Your task to perform on an android device: Go to Maps Image 0: 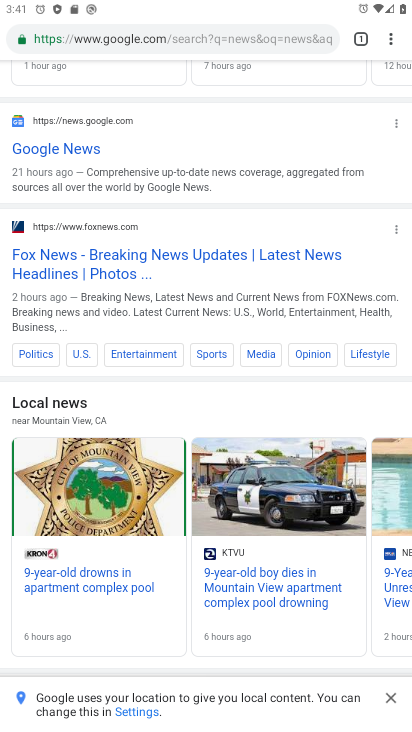
Step 0: press home button
Your task to perform on an android device: Go to Maps Image 1: 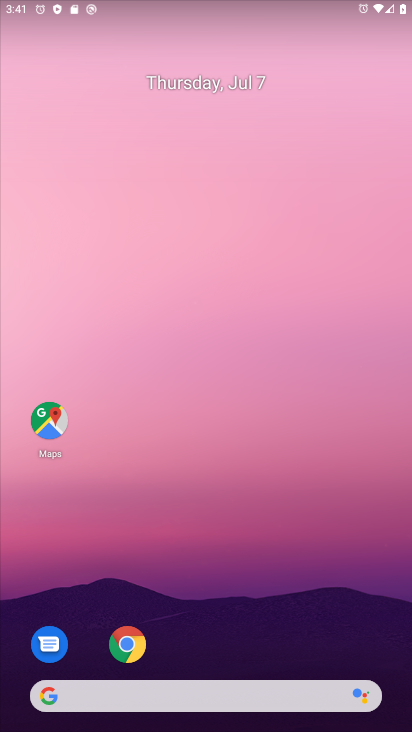
Step 1: click (45, 411)
Your task to perform on an android device: Go to Maps Image 2: 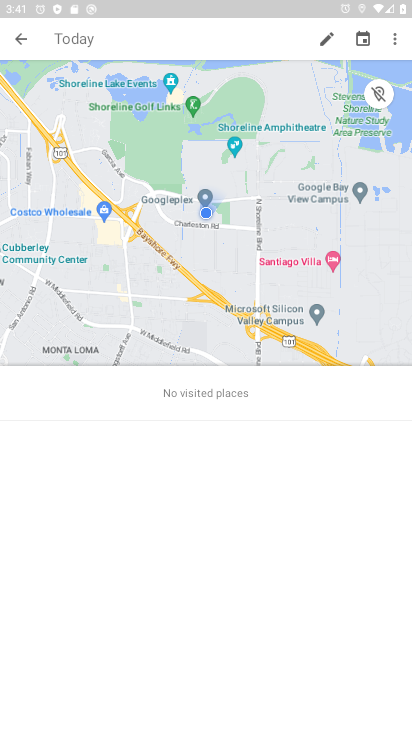
Step 2: task complete